Your task to perform on an android device: clear history in the chrome app Image 0: 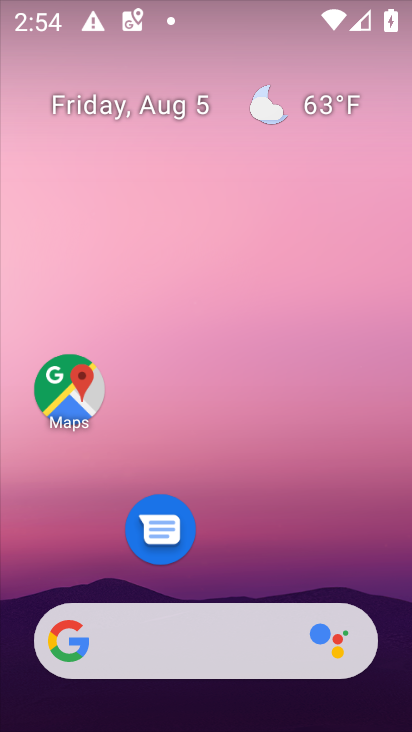
Step 0: drag from (166, 576) to (252, 107)
Your task to perform on an android device: clear history in the chrome app Image 1: 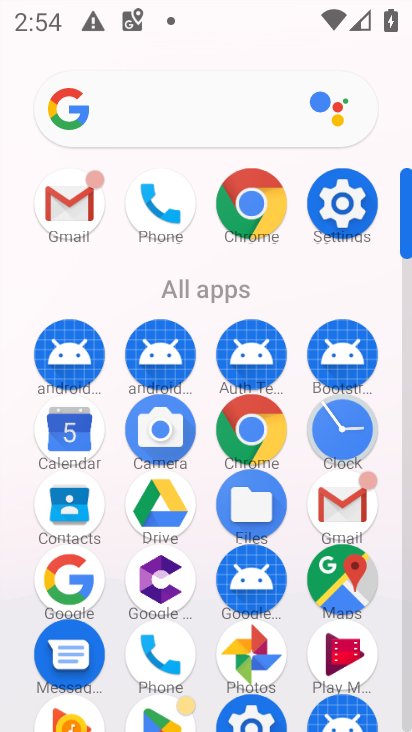
Step 1: click (248, 204)
Your task to perform on an android device: clear history in the chrome app Image 2: 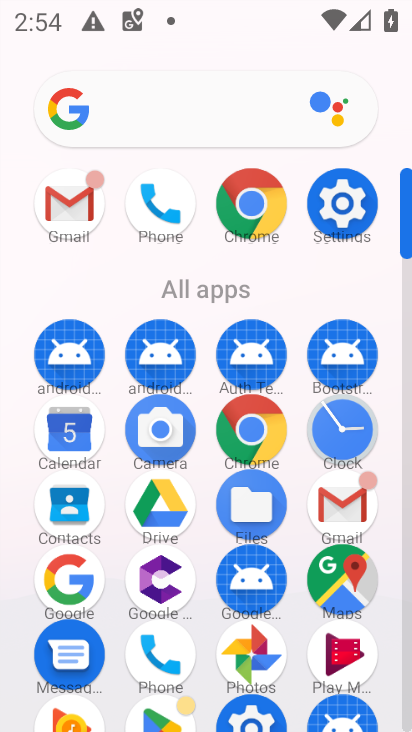
Step 2: click (248, 204)
Your task to perform on an android device: clear history in the chrome app Image 3: 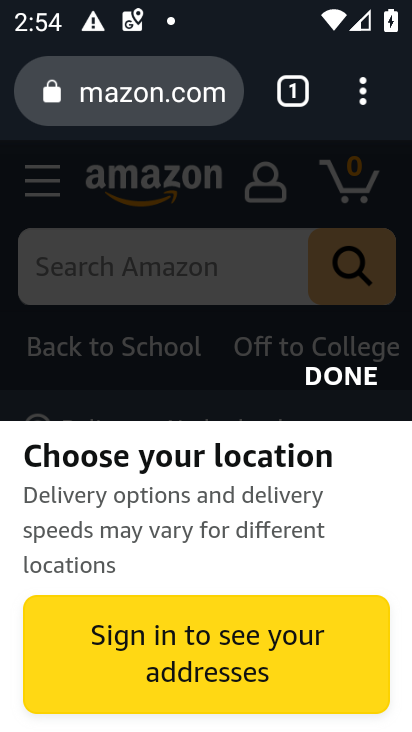
Step 3: click (373, 96)
Your task to perform on an android device: clear history in the chrome app Image 4: 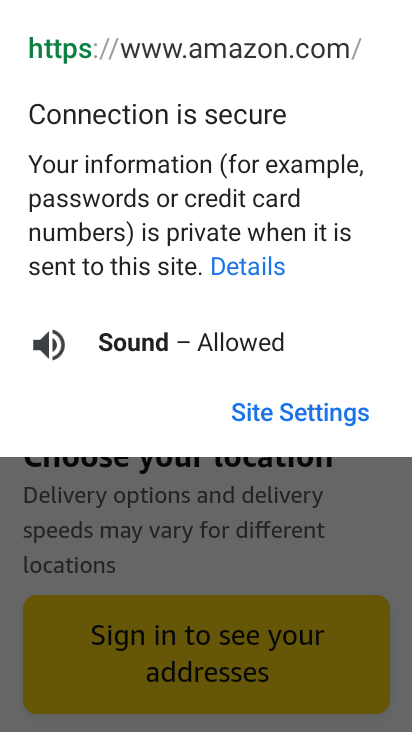
Step 4: click (268, 537)
Your task to perform on an android device: clear history in the chrome app Image 5: 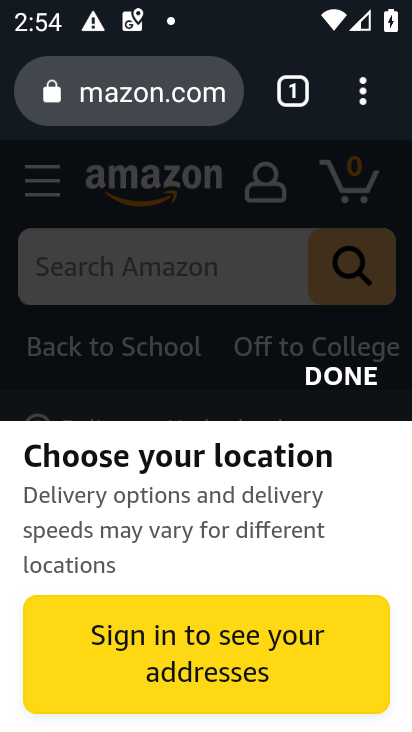
Step 5: click (358, 92)
Your task to perform on an android device: clear history in the chrome app Image 6: 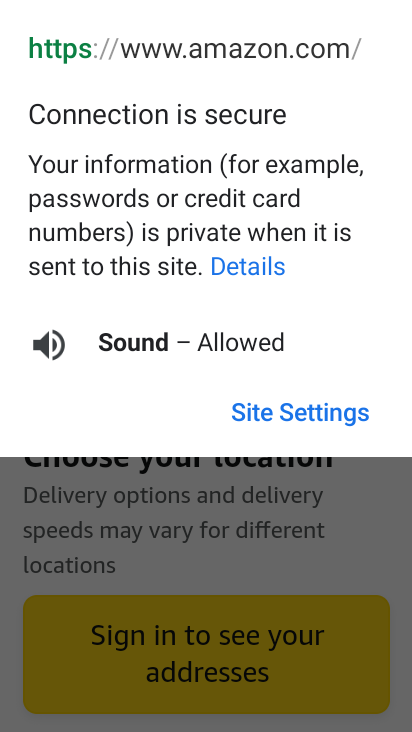
Step 6: click (357, 517)
Your task to perform on an android device: clear history in the chrome app Image 7: 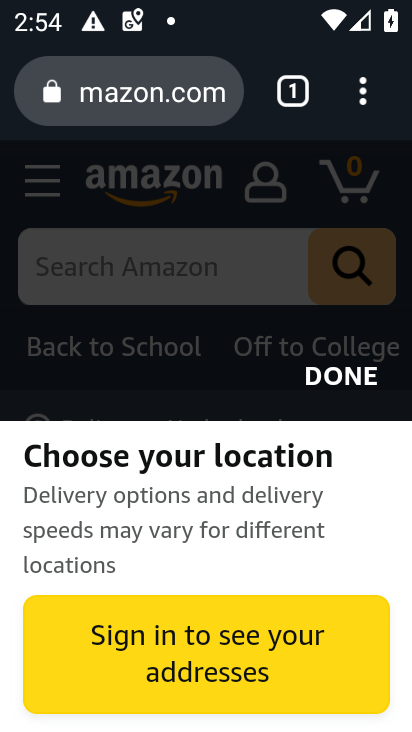
Step 7: click (363, 87)
Your task to perform on an android device: clear history in the chrome app Image 8: 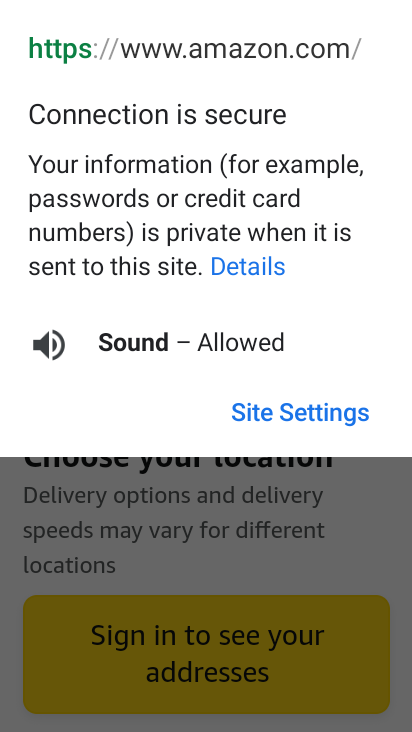
Step 8: click (379, 560)
Your task to perform on an android device: clear history in the chrome app Image 9: 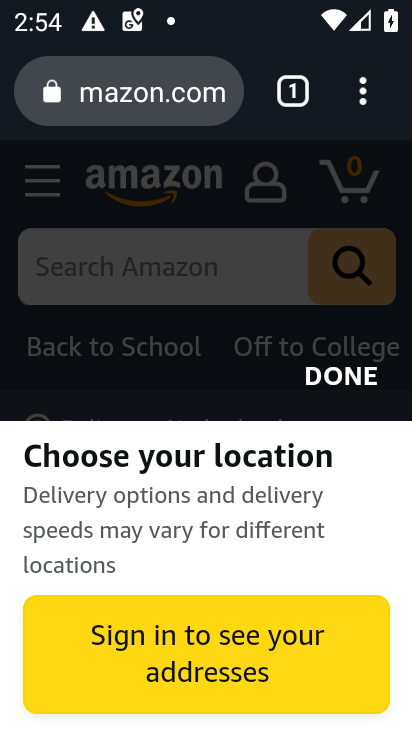
Step 9: click (370, 92)
Your task to perform on an android device: clear history in the chrome app Image 10: 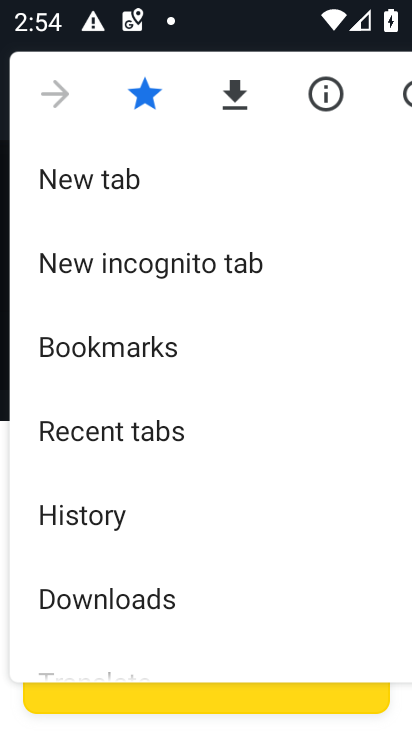
Step 10: click (174, 513)
Your task to perform on an android device: clear history in the chrome app Image 11: 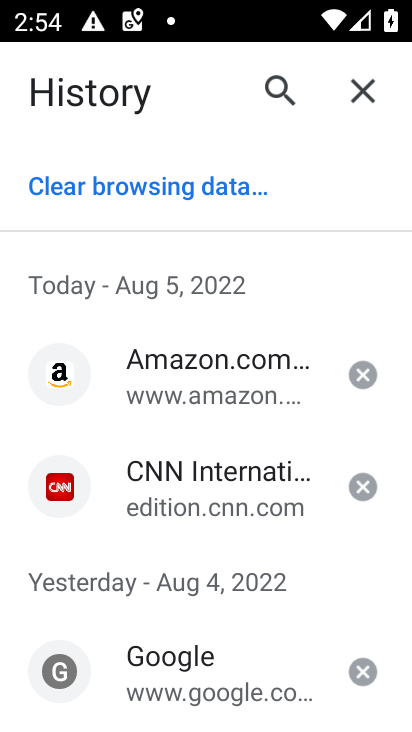
Step 11: click (202, 186)
Your task to perform on an android device: clear history in the chrome app Image 12: 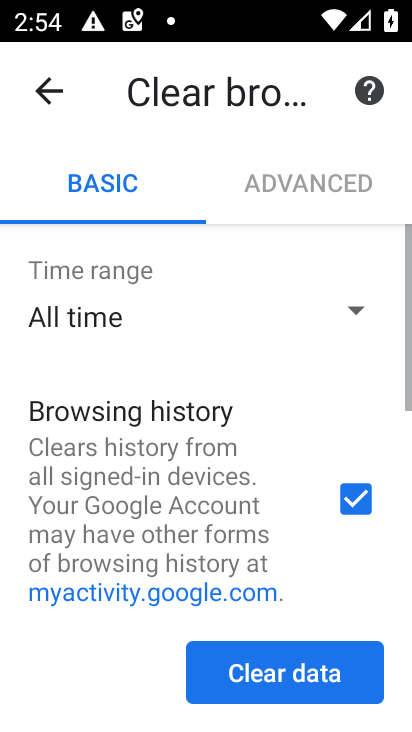
Step 12: click (337, 665)
Your task to perform on an android device: clear history in the chrome app Image 13: 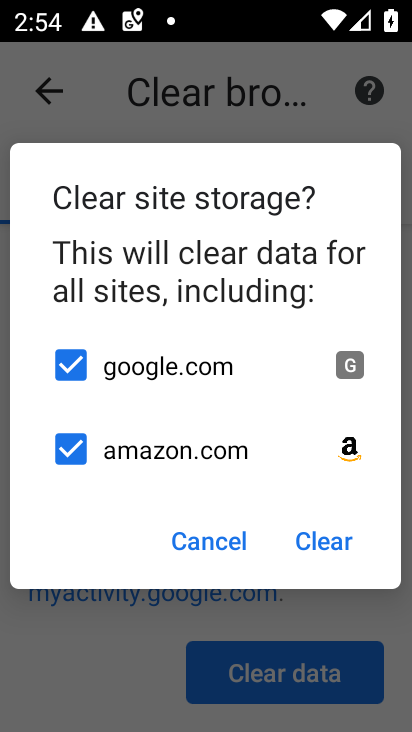
Step 13: click (339, 552)
Your task to perform on an android device: clear history in the chrome app Image 14: 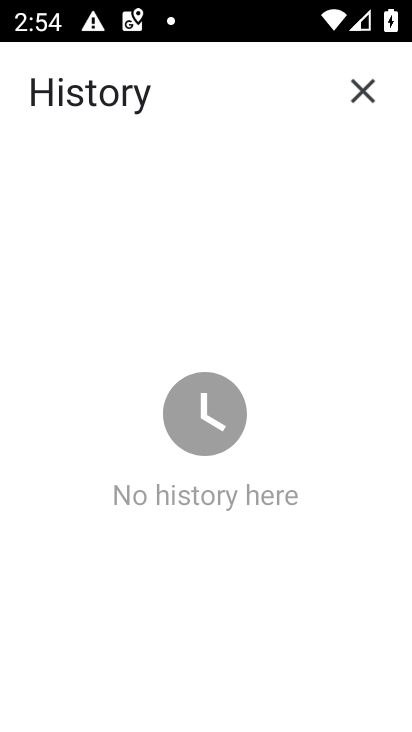
Step 14: task complete